Your task to perform on an android device: Is it going to rain this weekend? Image 0: 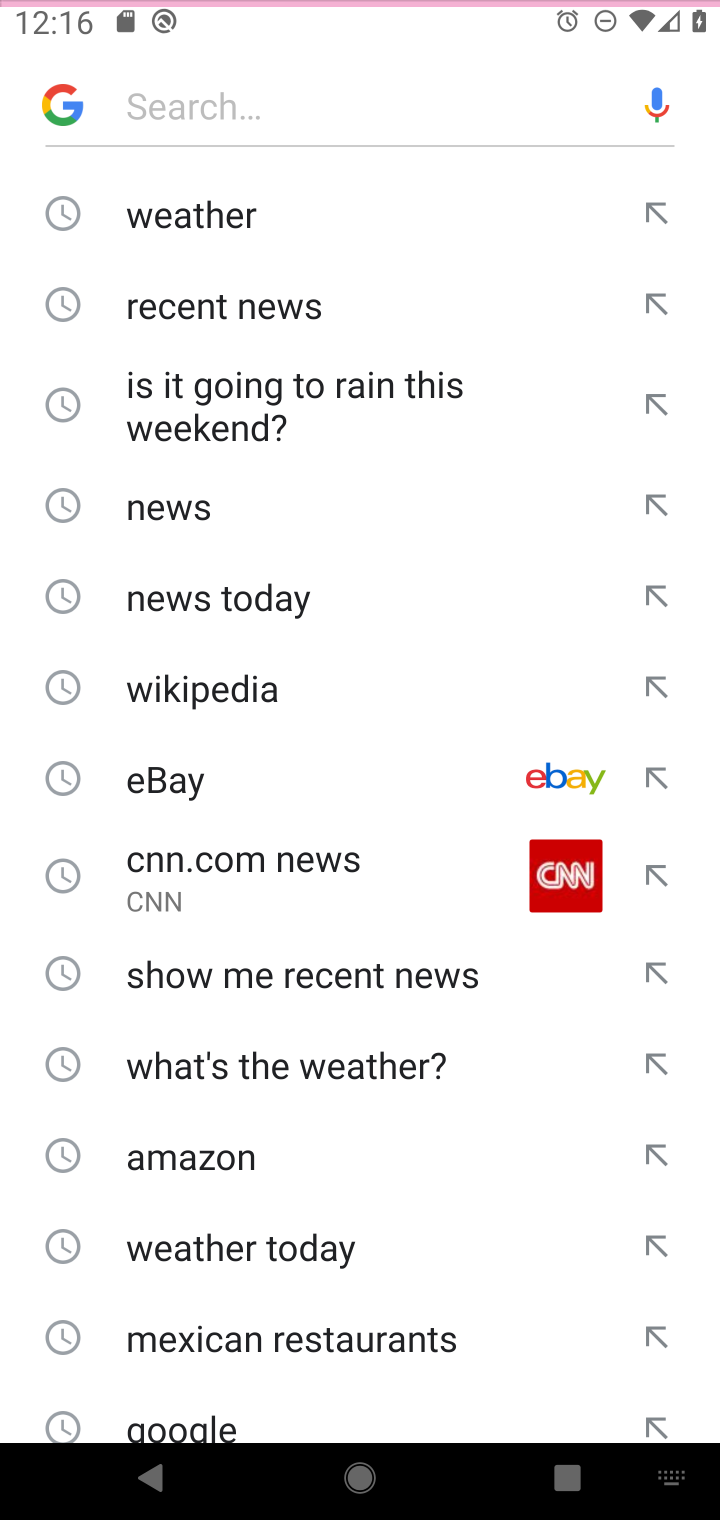
Step 0: press home button
Your task to perform on an android device: Is it going to rain this weekend? Image 1: 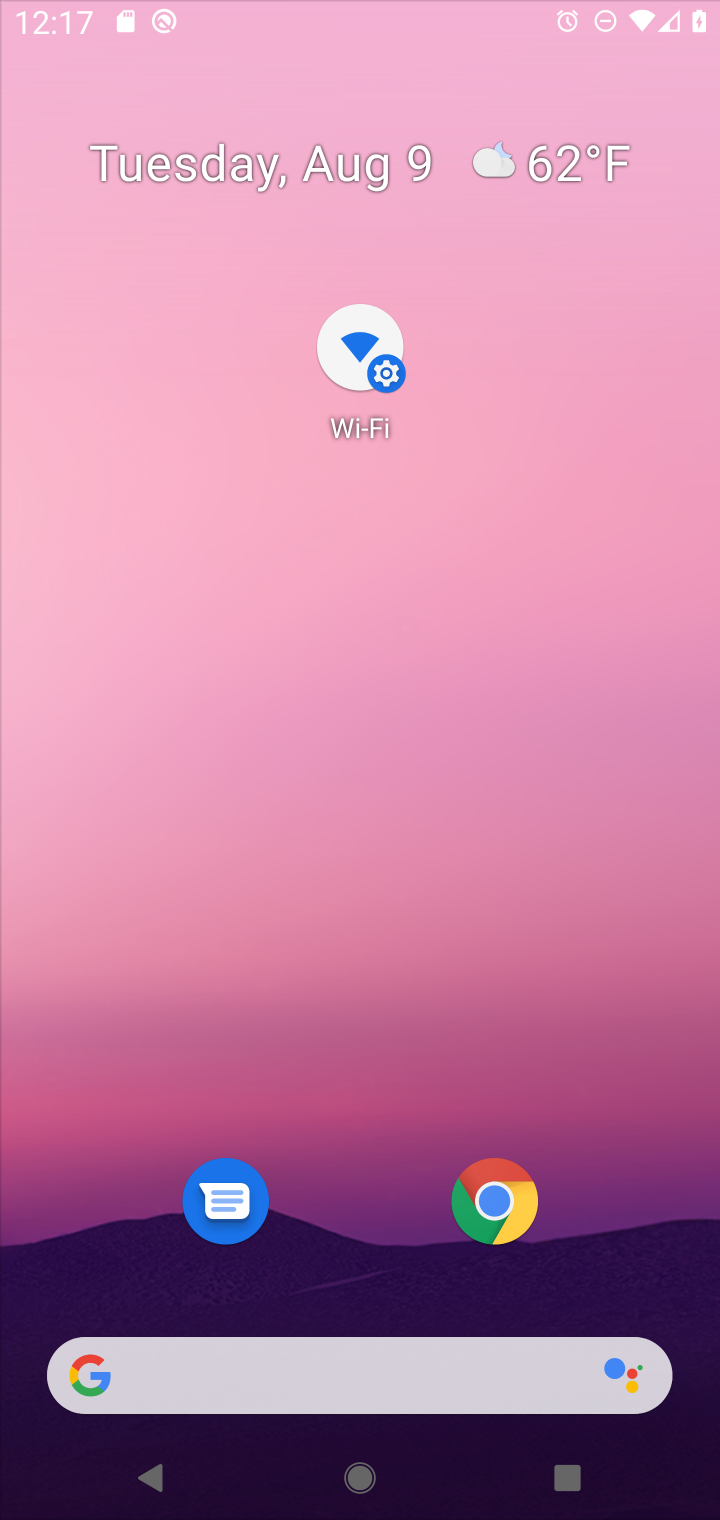
Step 1: press home button
Your task to perform on an android device: Is it going to rain this weekend? Image 2: 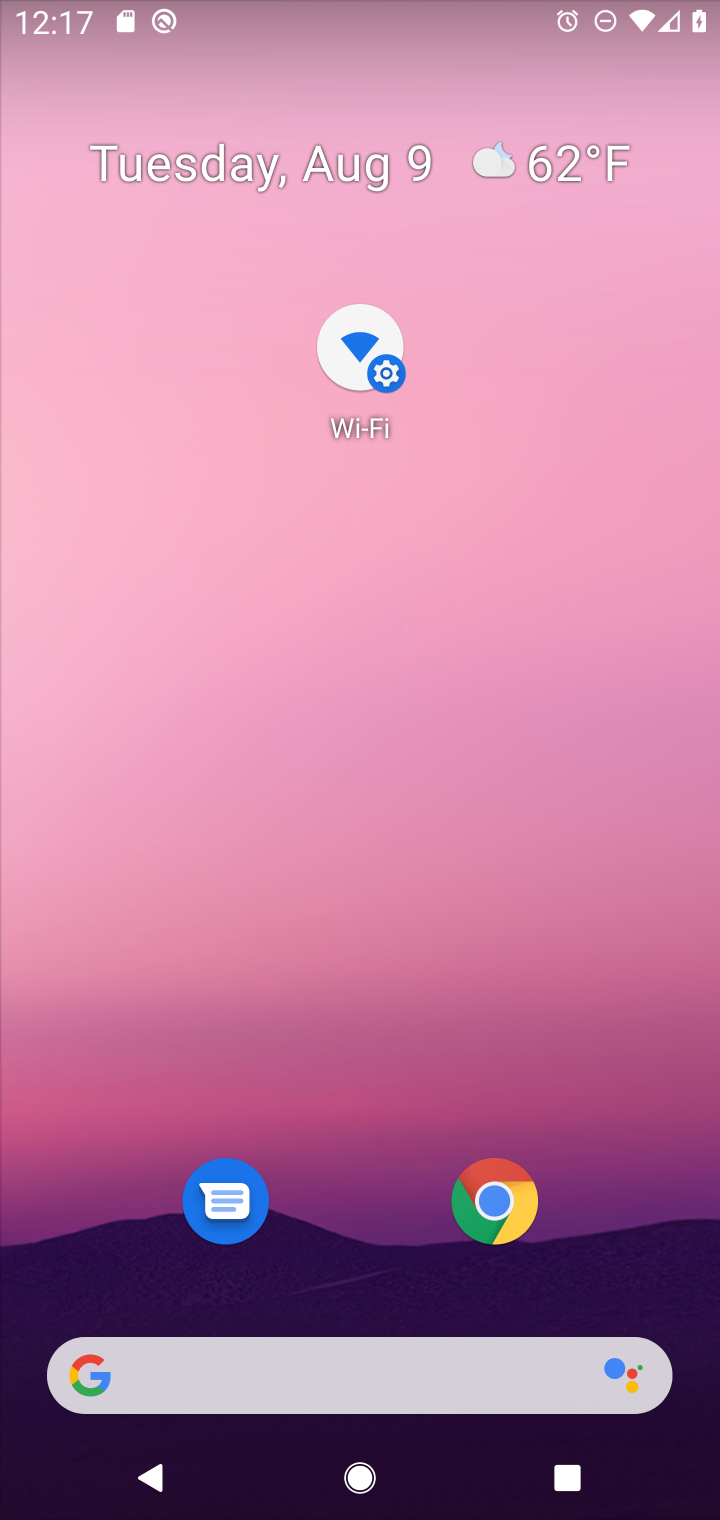
Step 2: drag from (620, 1182) to (621, 206)
Your task to perform on an android device: Is it going to rain this weekend? Image 3: 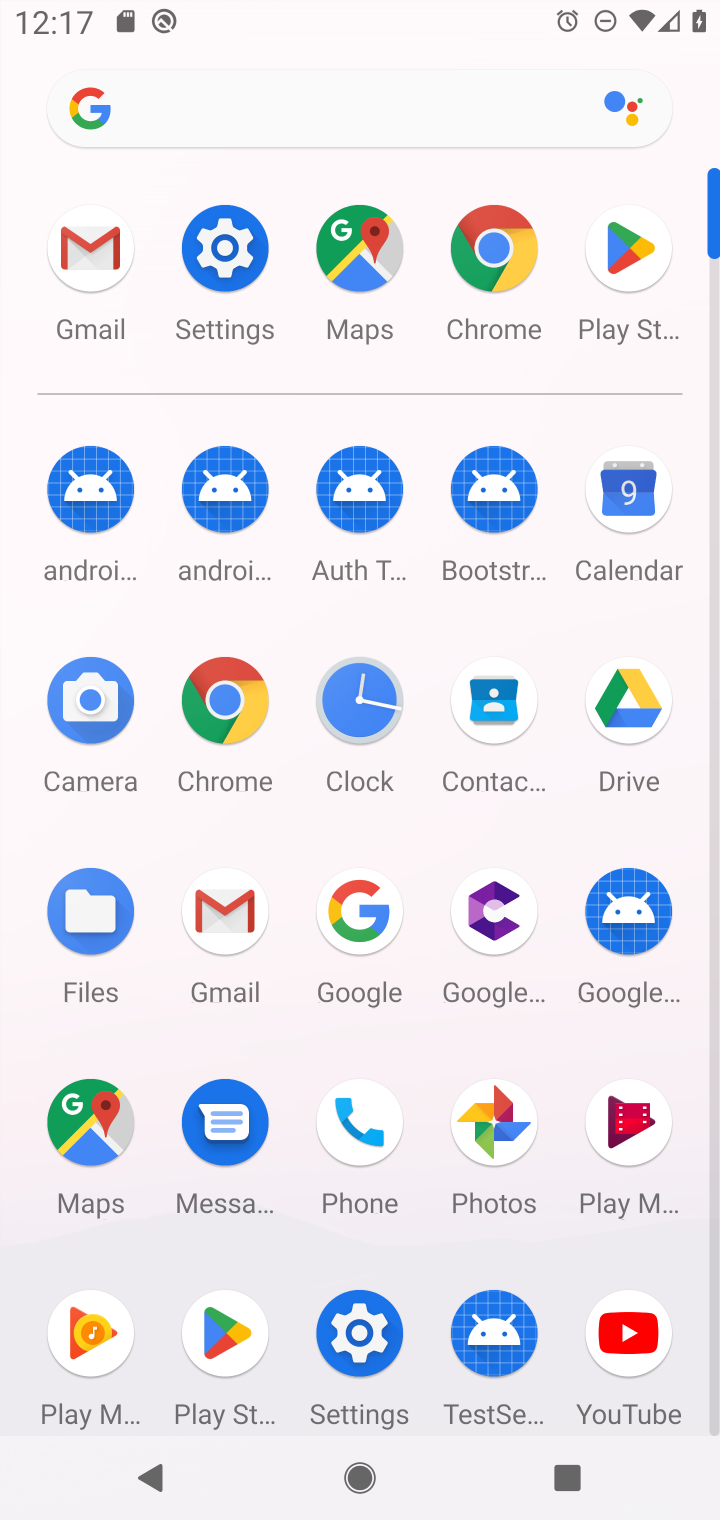
Step 3: press home button
Your task to perform on an android device: Is it going to rain this weekend? Image 4: 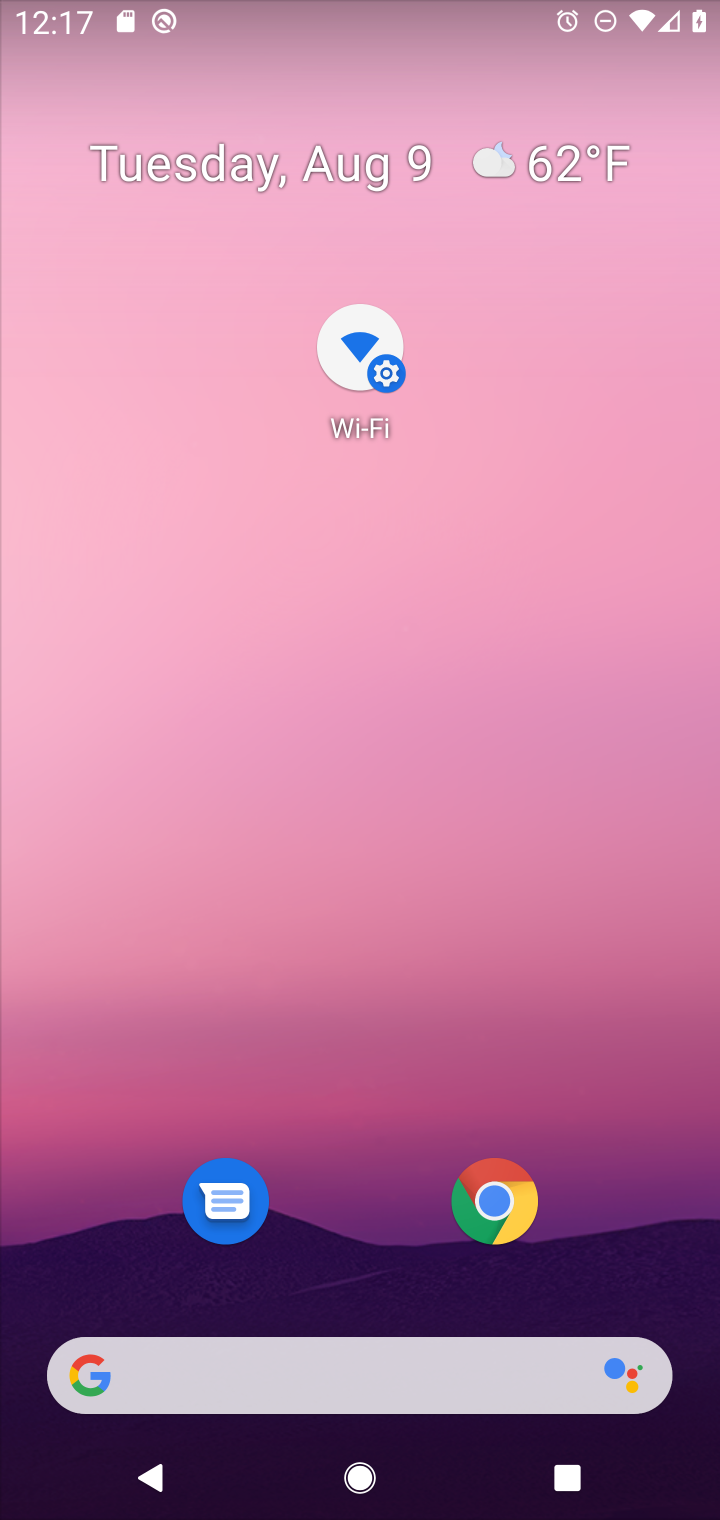
Step 4: click (371, 1376)
Your task to perform on an android device: Is it going to rain this weekend? Image 5: 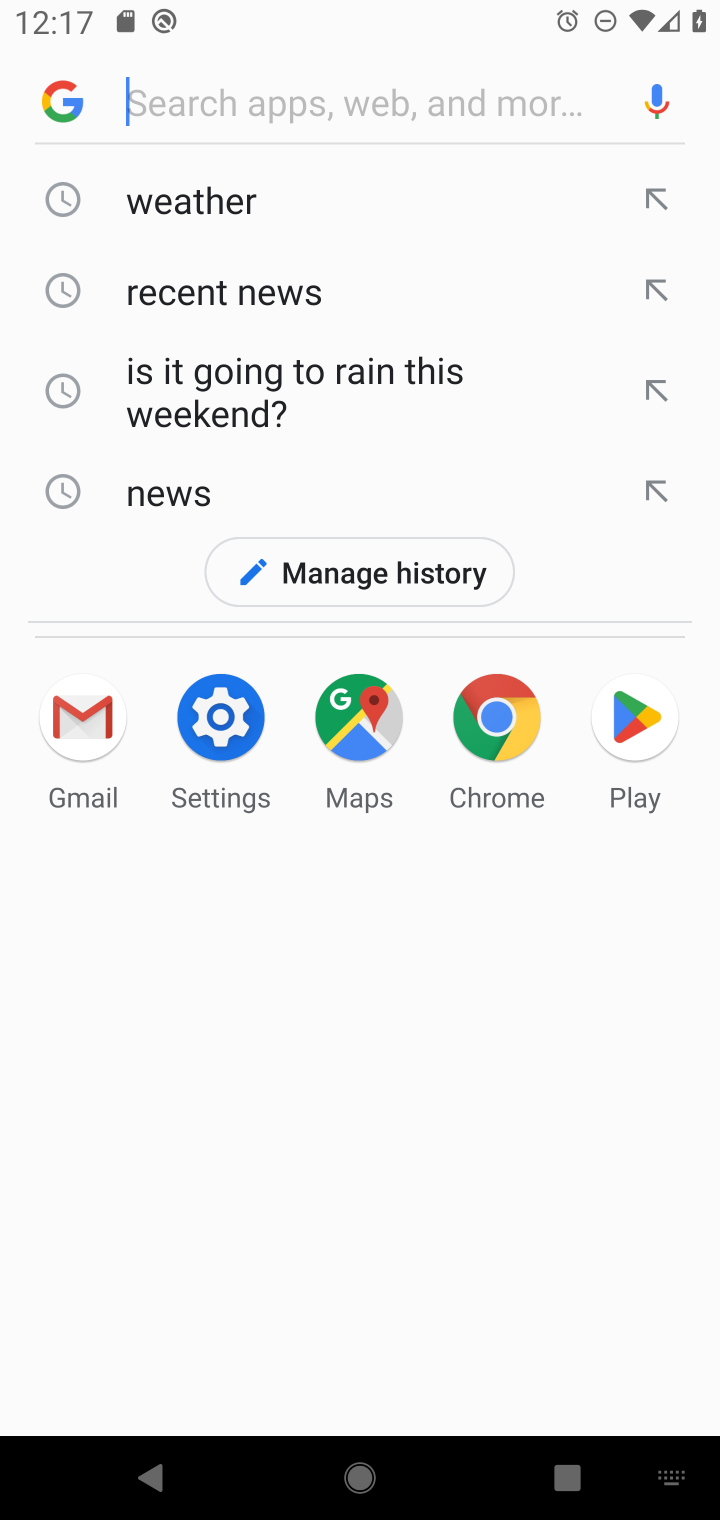
Step 5: click (218, 195)
Your task to perform on an android device: Is it going to rain this weekend? Image 6: 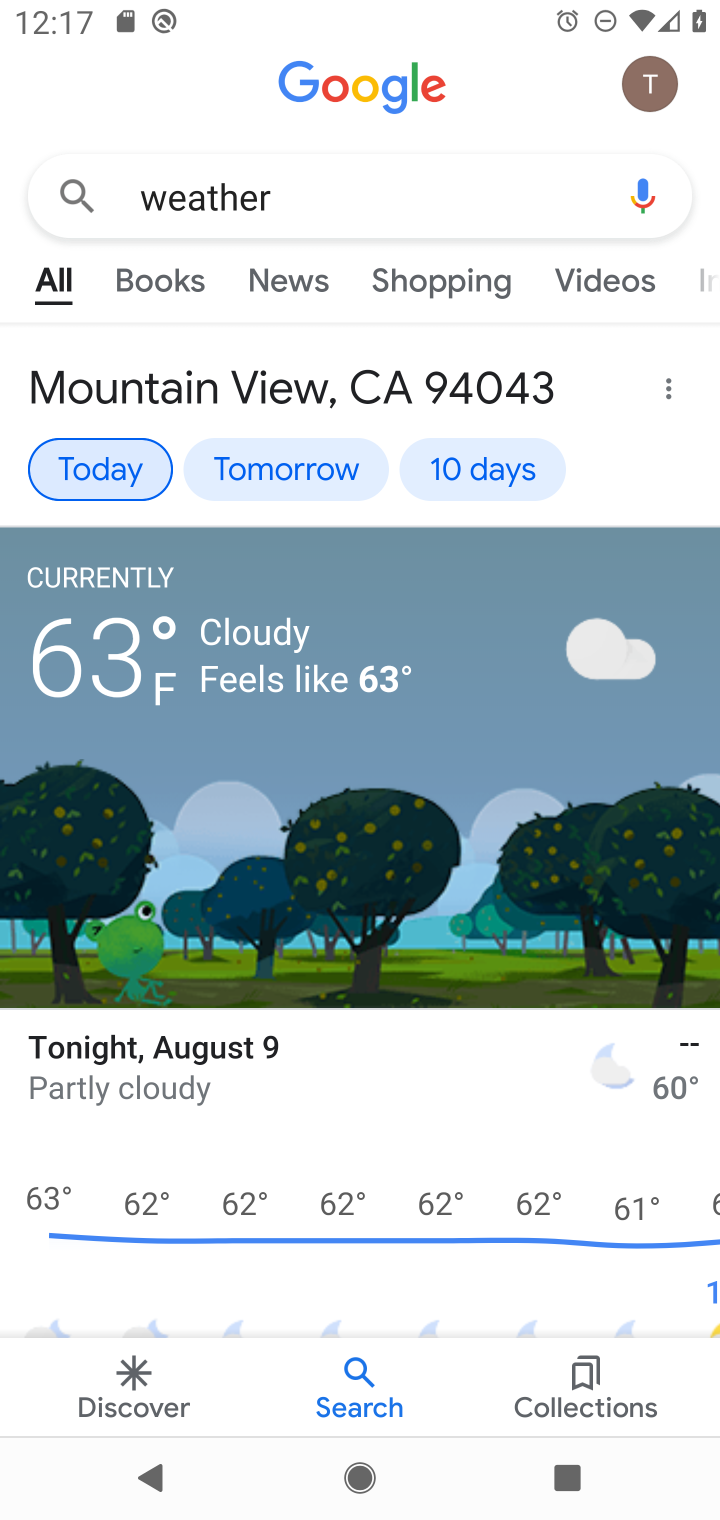
Step 6: click (499, 475)
Your task to perform on an android device: Is it going to rain this weekend? Image 7: 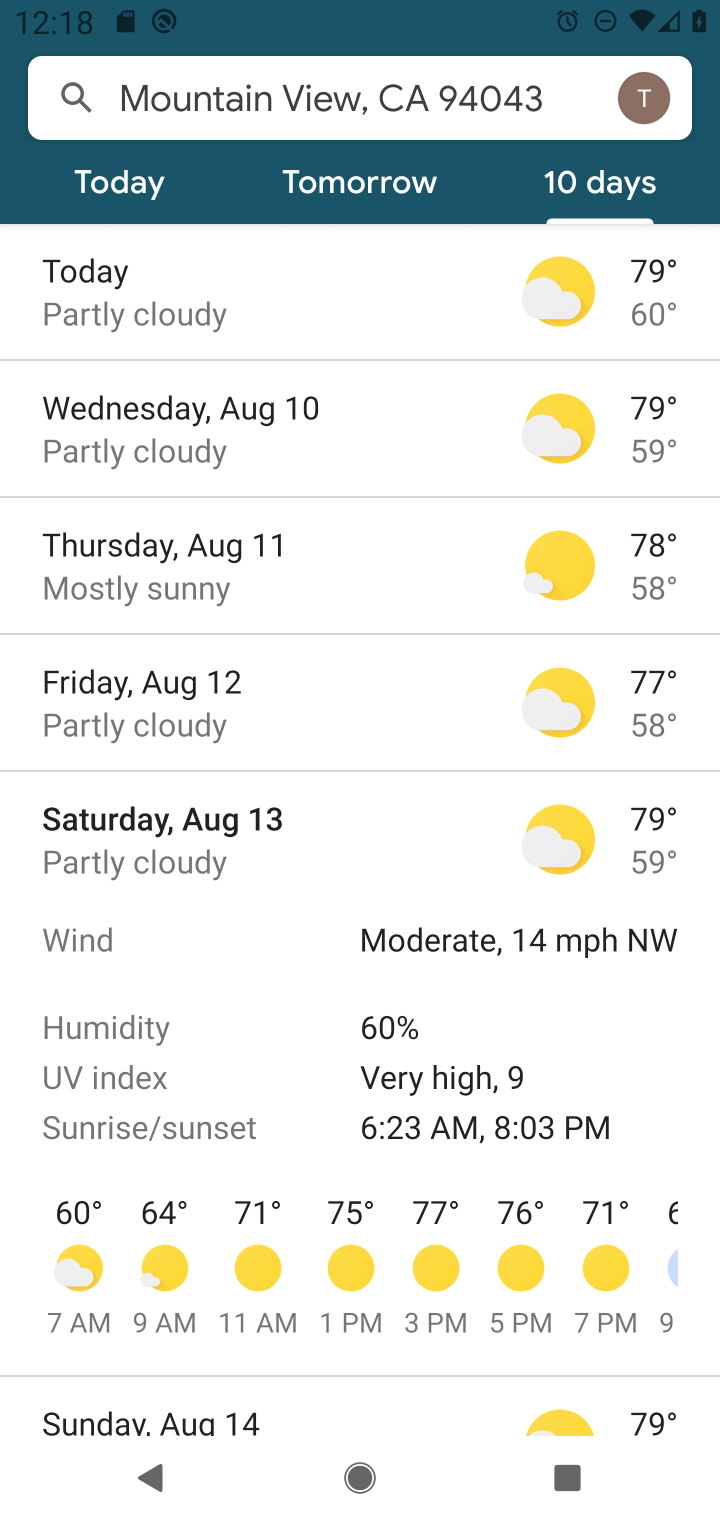
Step 7: task complete